Your task to perform on an android device: open chrome privacy settings Image 0: 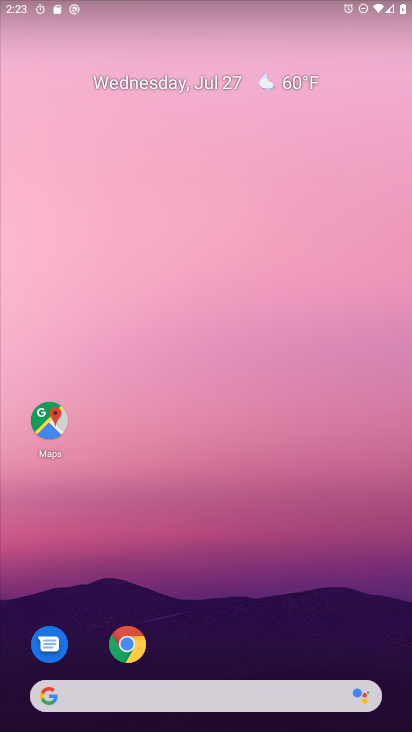
Step 0: drag from (188, 641) to (191, 395)
Your task to perform on an android device: open chrome privacy settings Image 1: 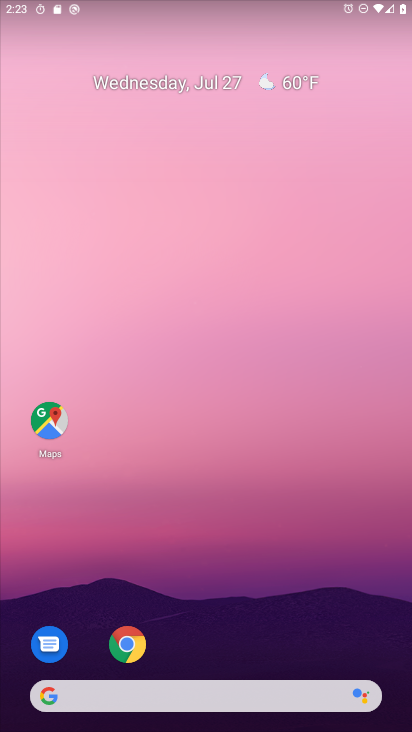
Step 1: drag from (180, 598) to (167, 221)
Your task to perform on an android device: open chrome privacy settings Image 2: 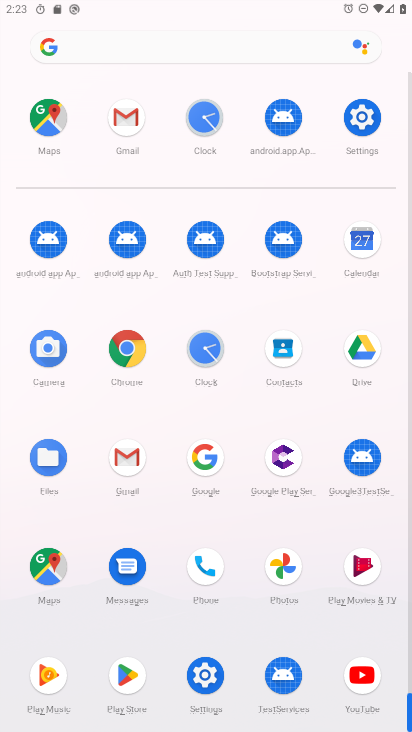
Step 2: click (201, 688)
Your task to perform on an android device: open chrome privacy settings Image 3: 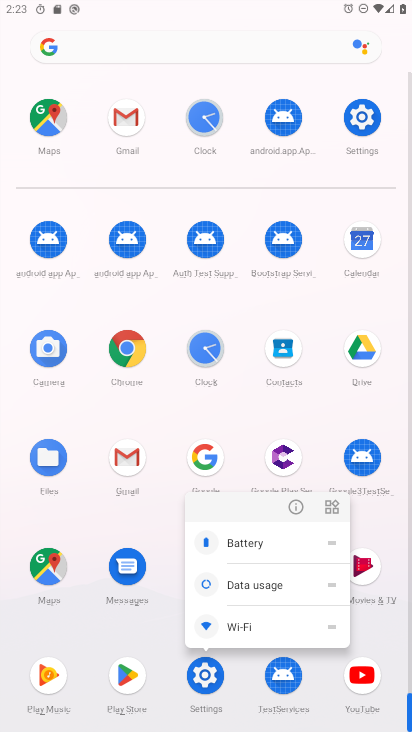
Step 3: click (134, 356)
Your task to perform on an android device: open chrome privacy settings Image 4: 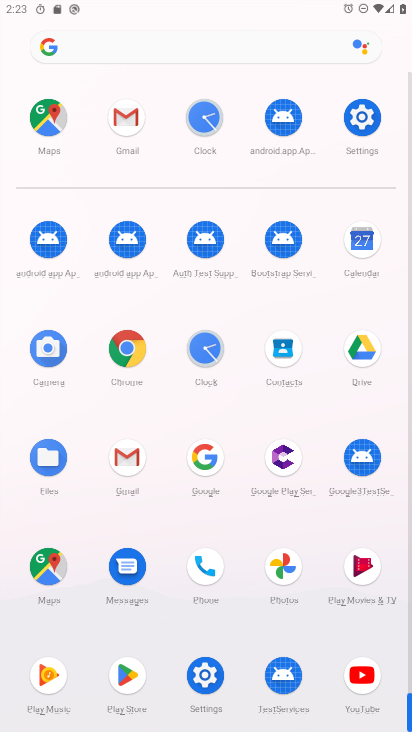
Step 4: click (122, 341)
Your task to perform on an android device: open chrome privacy settings Image 5: 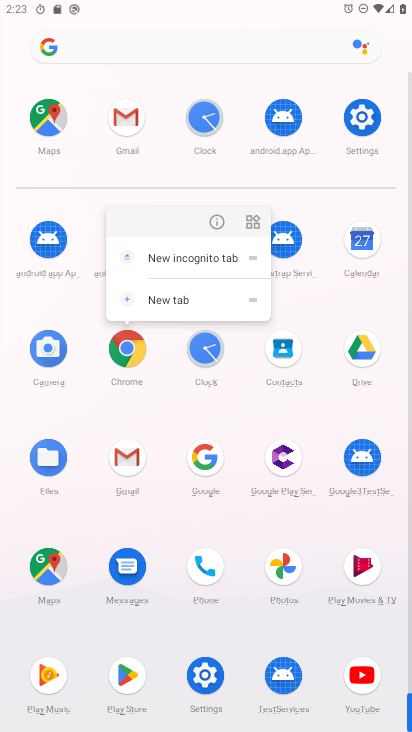
Step 5: click (216, 225)
Your task to perform on an android device: open chrome privacy settings Image 6: 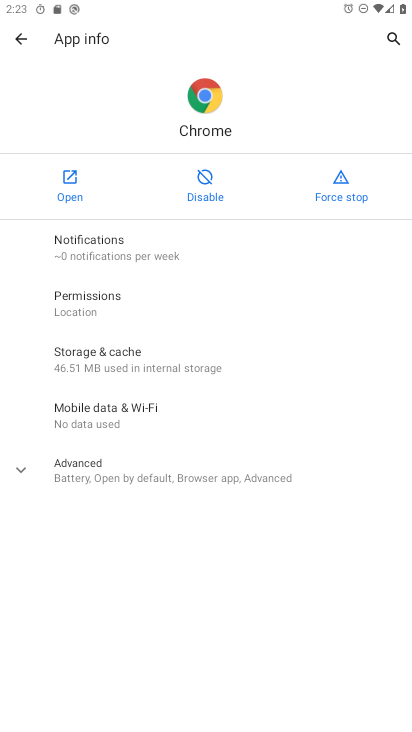
Step 6: click (69, 162)
Your task to perform on an android device: open chrome privacy settings Image 7: 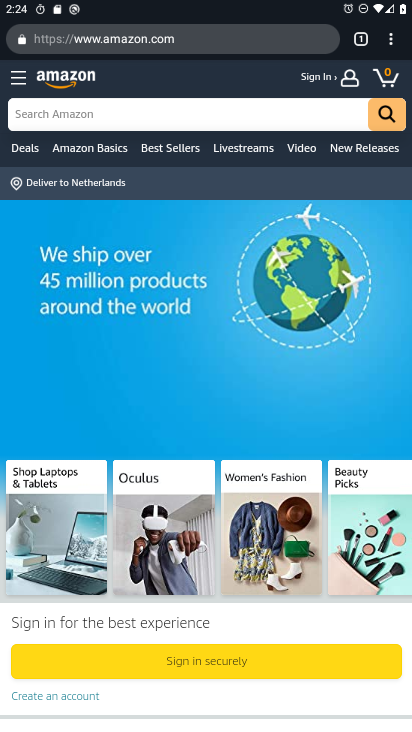
Step 7: drag from (397, 40) to (332, 509)
Your task to perform on an android device: open chrome privacy settings Image 8: 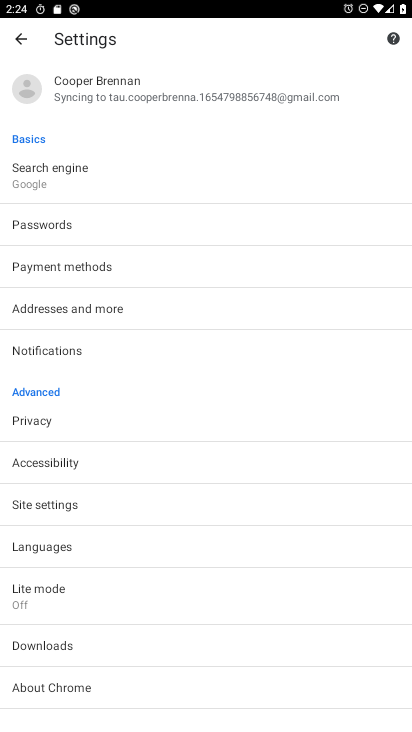
Step 8: click (73, 408)
Your task to perform on an android device: open chrome privacy settings Image 9: 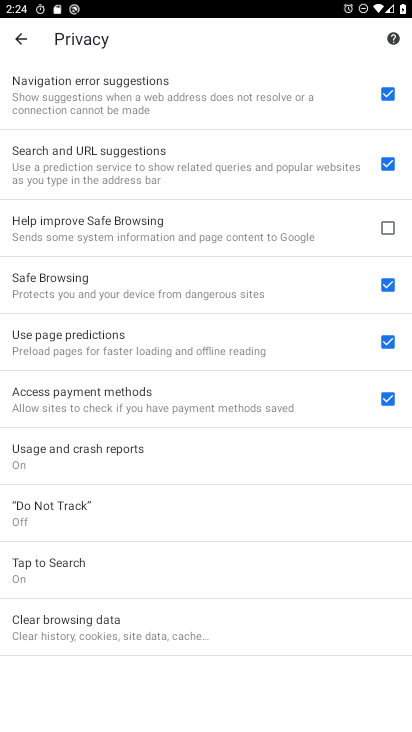
Step 9: task complete